Your task to perform on an android device: Is it going to rain tomorrow? Image 0: 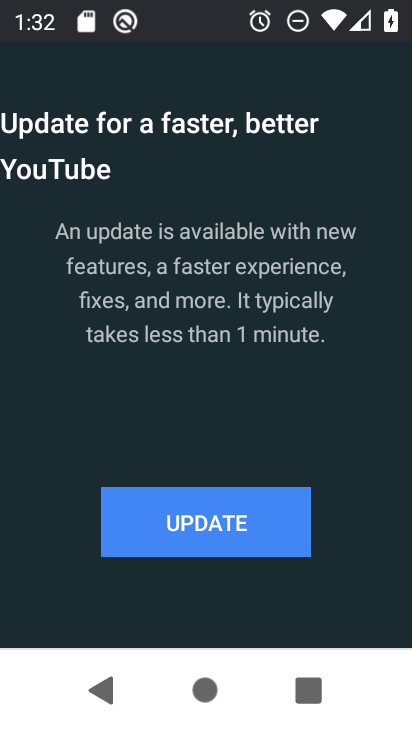
Step 0: press home button
Your task to perform on an android device: Is it going to rain tomorrow? Image 1: 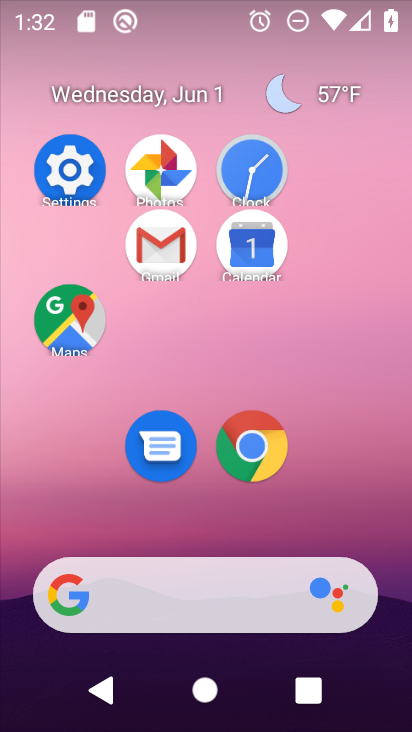
Step 1: drag from (327, 346) to (366, 42)
Your task to perform on an android device: Is it going to rain tomorrow? Image 2: 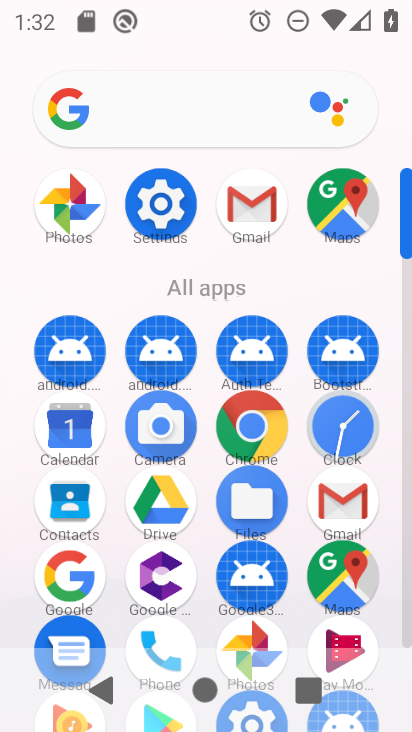
Step 2: drag from (244, 515) to (251, 152)
Your task to perform on an android device: Is it going to rain tomorrow? Image 3: 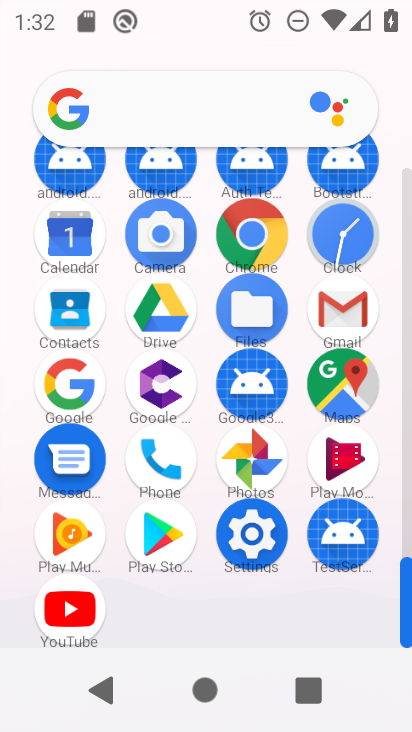
Step 3: drag from (70, 389) to (170, 305)
Your task to perform on an android device: Is it going to rain tomorrow? Image 4: 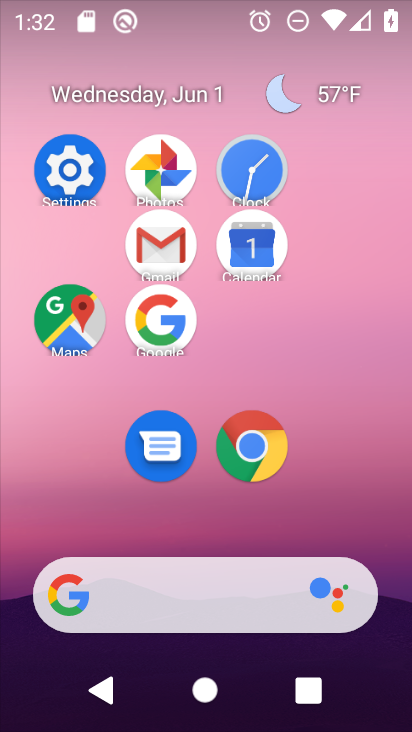
Step 4: click (153, 320)
Your task to perform on an android device: Is it going to rain tomorrow? Image 5: 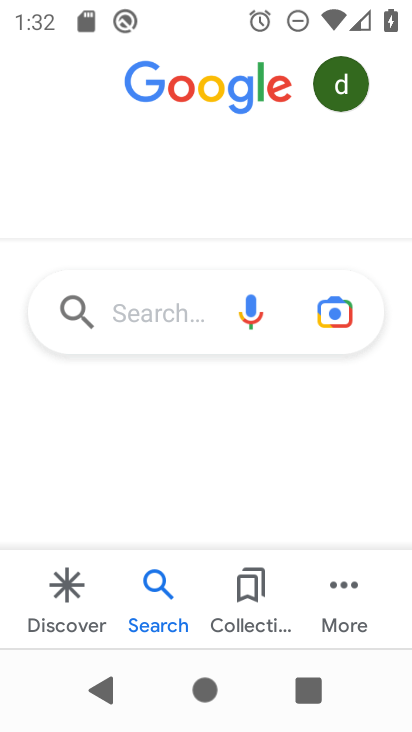
Step 5: click (148, 323)
Your task to perform on an android device: Is it going to rain tomorrow? Image 6: 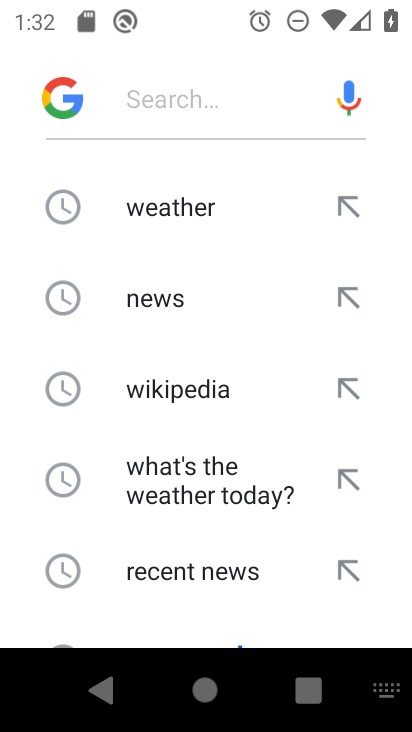
Step 6: click (165, 222)
Your task to perform on an android device: Is it going to rain tomorrow? Image 7: 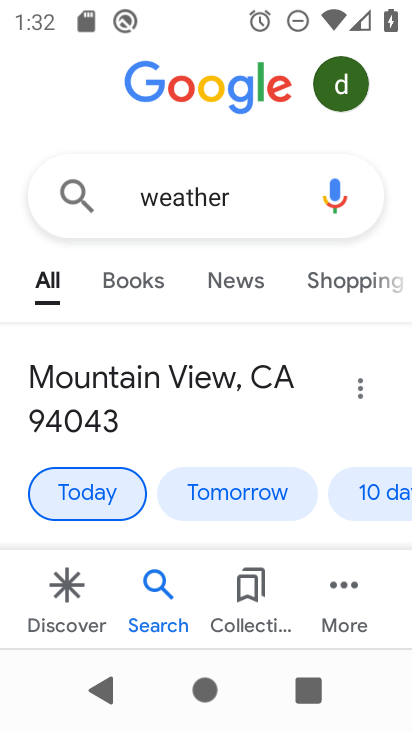
Step 7: click (222, 491)
Your task to perform on an android device: Is it going to rain tomorrow? Image 8: 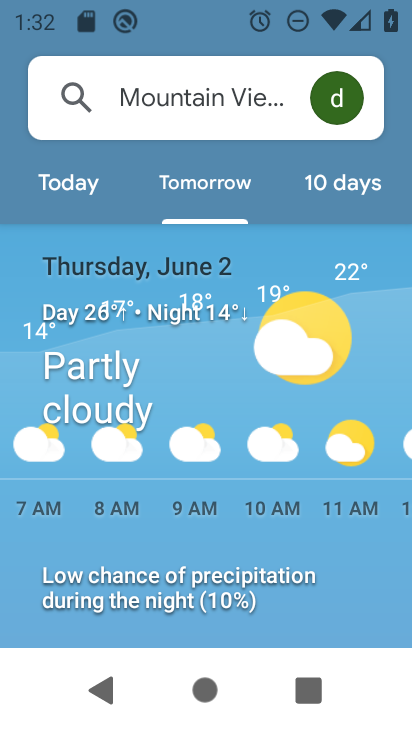
Step 8: task complete